Your task to perform on an android device: toggle show notifications on the lock screen Image 0: 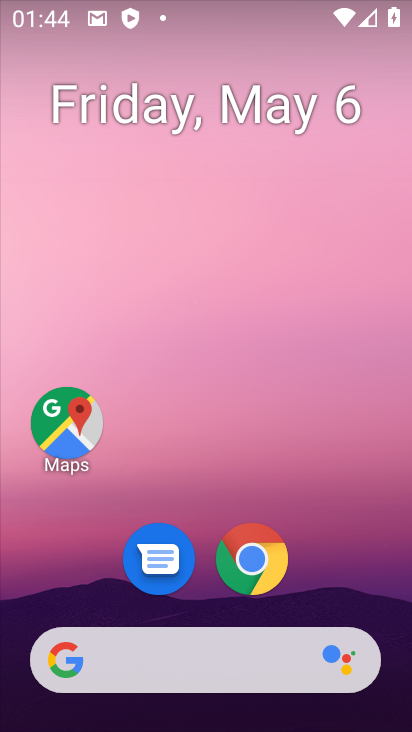
Step 0: drag from (315, 649) to (299, 0)
Your task to perform on an android device: toggle show notifications on the lock screen Image 1: 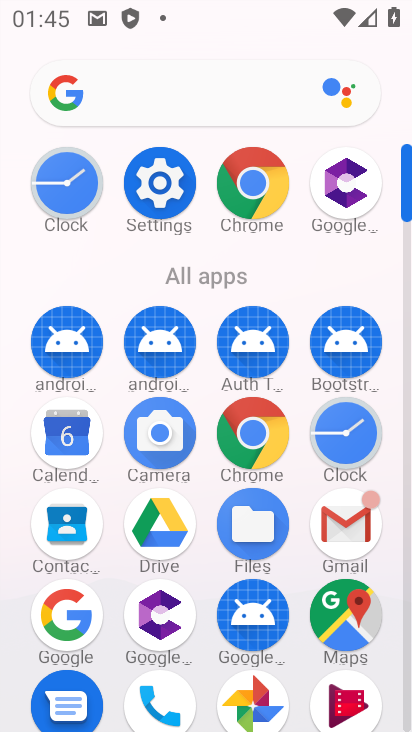
Step 1: drag from (198, 666) to (190, 218)
Your task to perform on an android device: toggle show notifications on the lock screen Image 2: 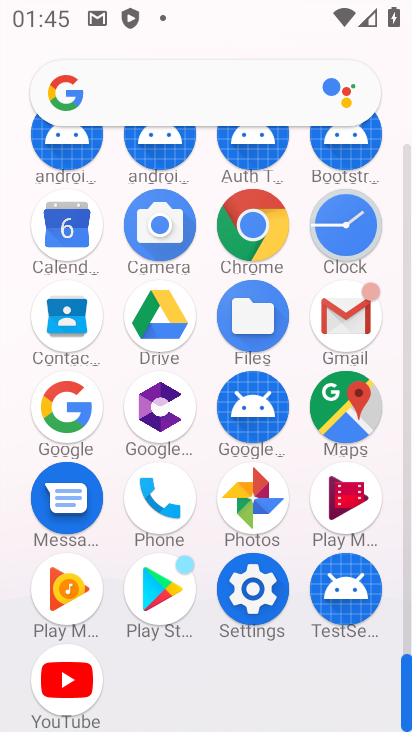
Step 2: click (250, 580)
Your task to perform on an android device: toggle show notifications on the lock screen Image 3: 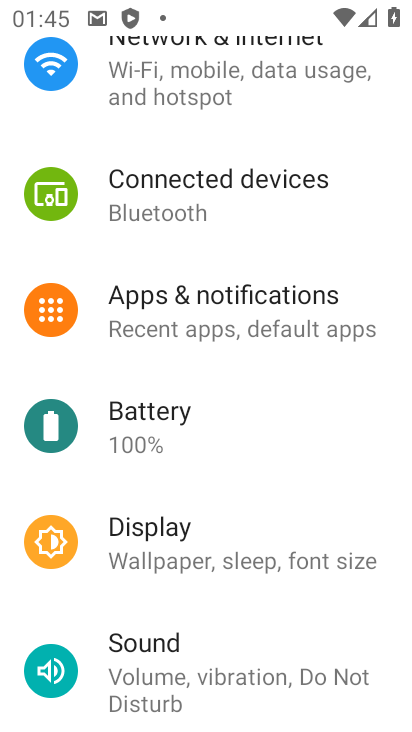
Step 3: click (263, 301)
Your task to perform on an android device: toggle show notifications on the lock screen Image 4: 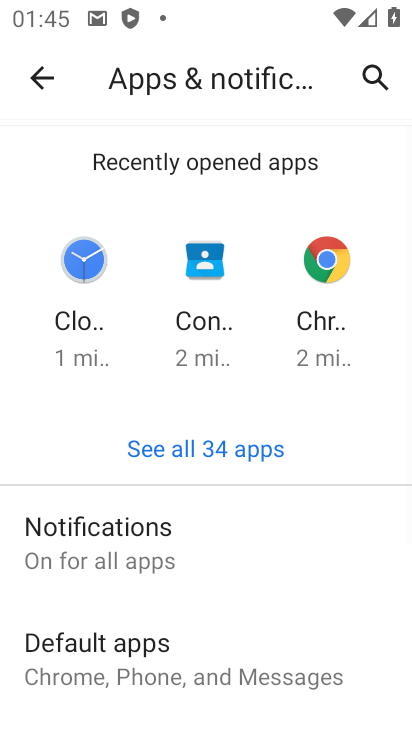
Step 4: drag from (277, 676) to (276, 338)
Your task to perform on an android device: toggle show notifications on the lock screen Image 5: 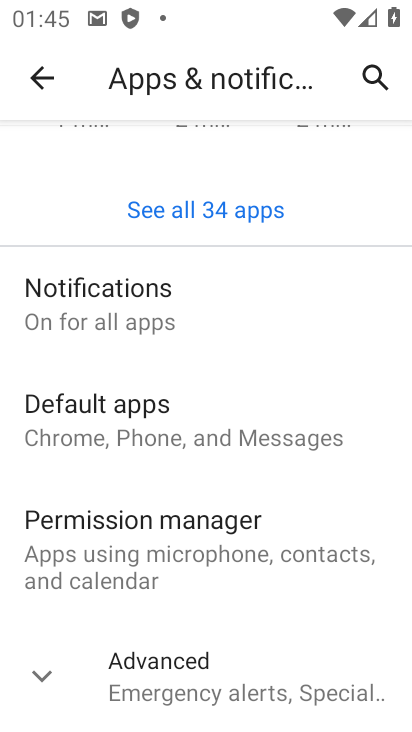
Step 5: click (174, 319)
Your task to perform on an android device: toggle show notifications on the lock screen Image 6: 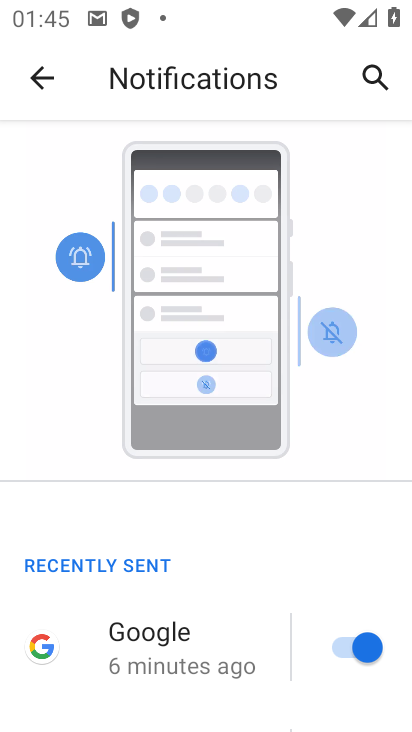
Step 6: press back button
Your task to perform on an android device: toggle show notifications on the lock screen Image 7: 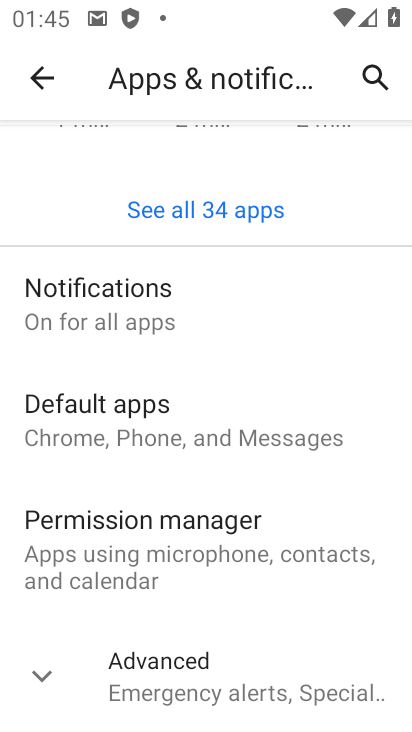
Step 7: click (204, 298)
Your task to perform on an android device: toggle show notifications on the lock screen Image 8: 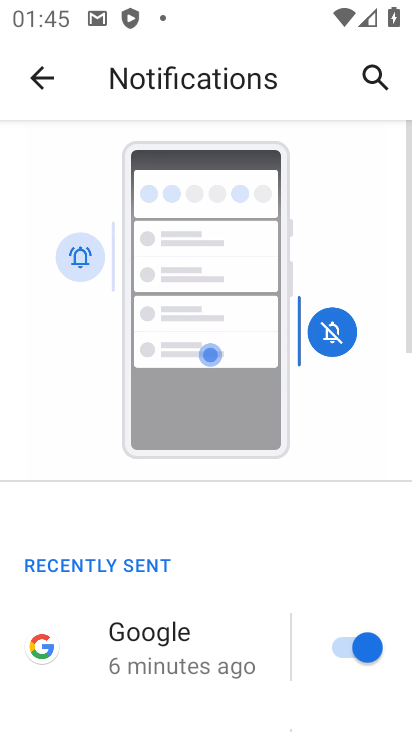
Step 8: drag from (246, 645) to (232, 102)
Your task to perform on an android device: toggle show notifications on the lock screen Image 9: 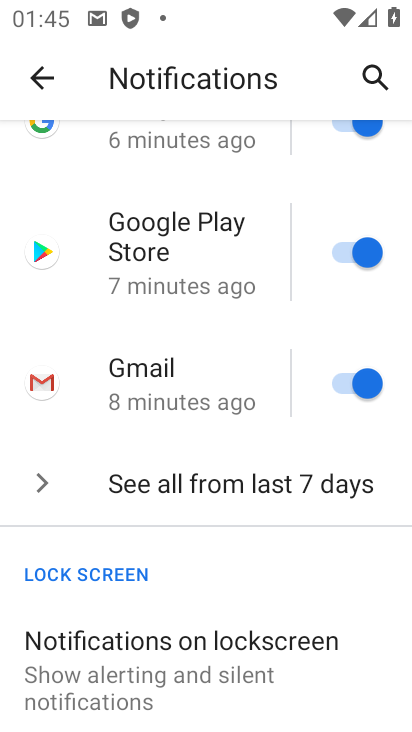
Step 9: drag from (224, 670) to (226, 319)
Your task to perform on an android device: toggle show notifications on the lock screen Image 10: 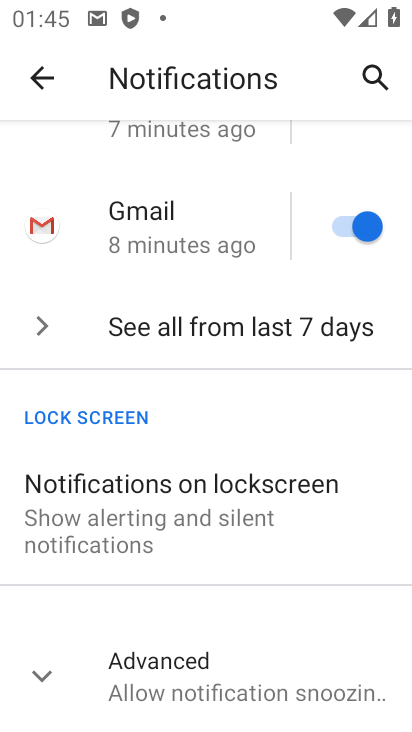
Step 10: click (224, 500)
Your task to perform on an android device: toggle show notifications on the lock screen Image 11: 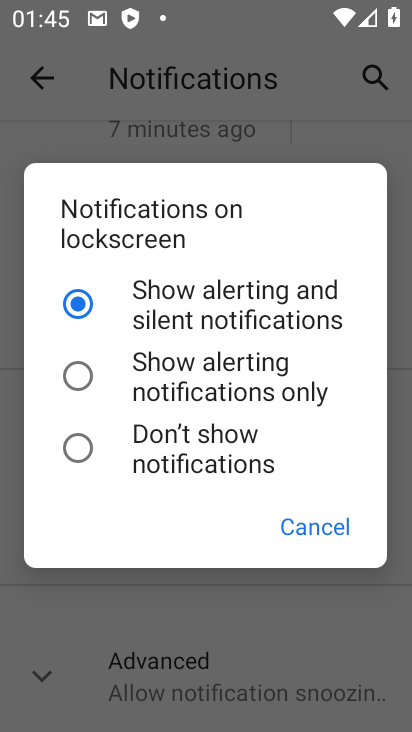
Step 11: click (100, 376)
Your task to perform on an android device: toggle show notifications on the lock screen Image 12: 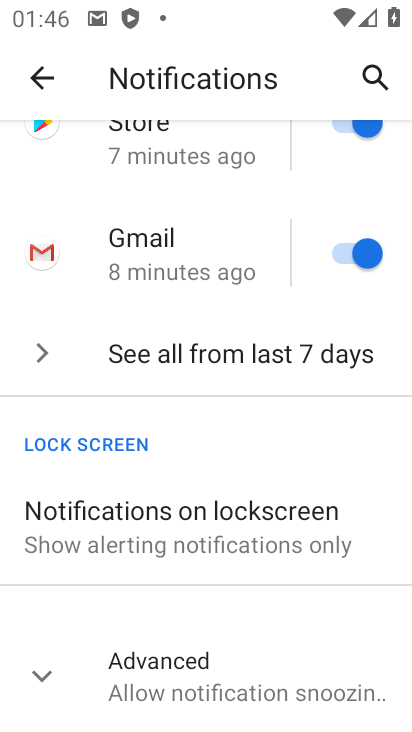
Step 12: task complete